Your task to perform on an android device: turn pop-ups on in chrome Image 0: 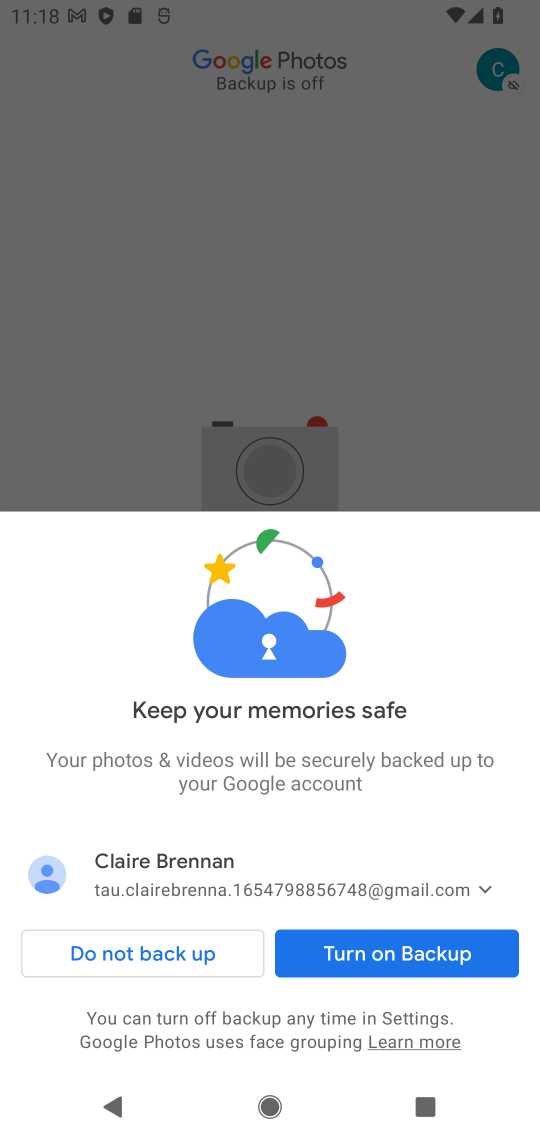
Step 0: press home button
Your task to perform on an android device: turn pop-ups on in chrome Image 1: 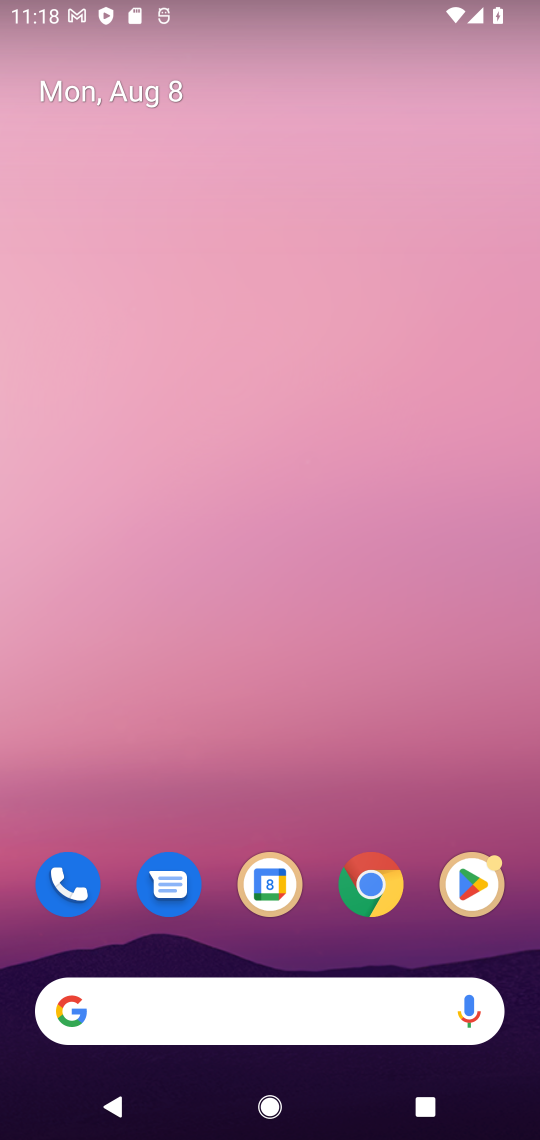
Step 1: click (372, 909)
Your task to perform on an android device: turn pop-ups on in chrome Image 2: 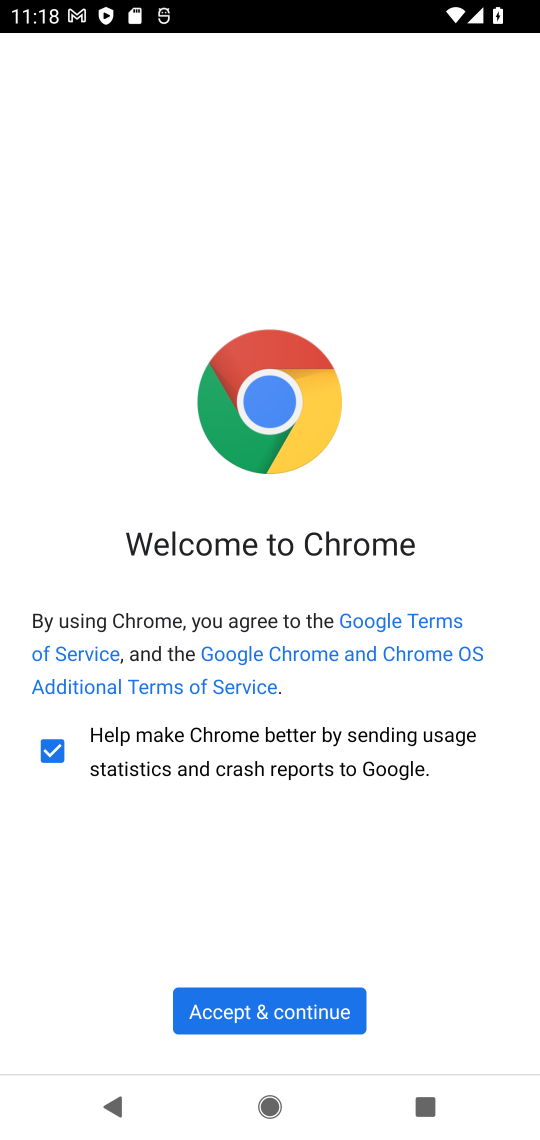
Step 2: click (299, 1013)
Your task to perform on an android device: turn pop-ups on in chrome Image 3: 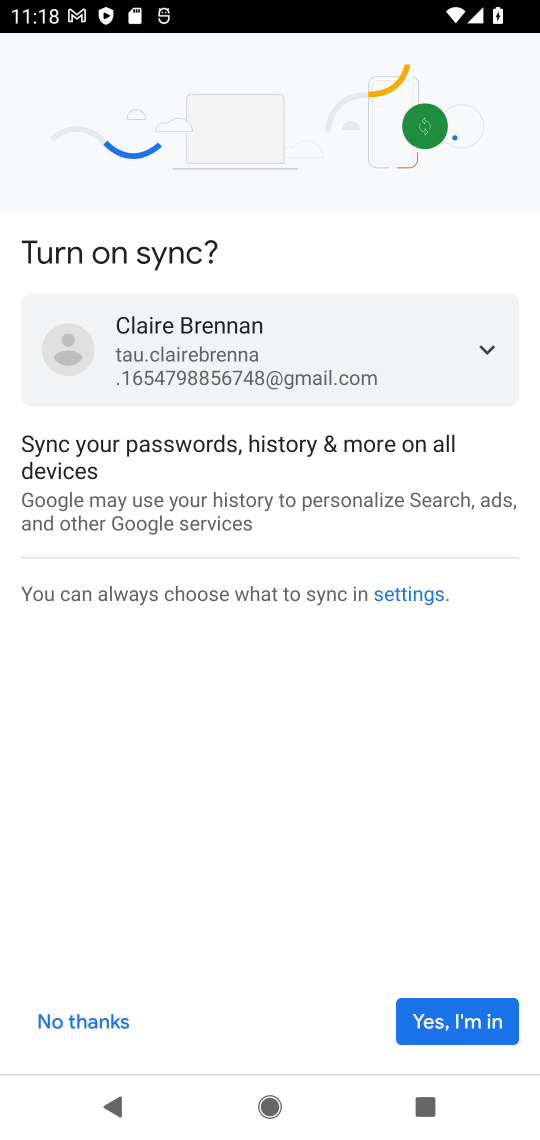
Step 3: click (468, 1010)
Your task to perform on an android device: turn pop-ups on in chrome Image 4: 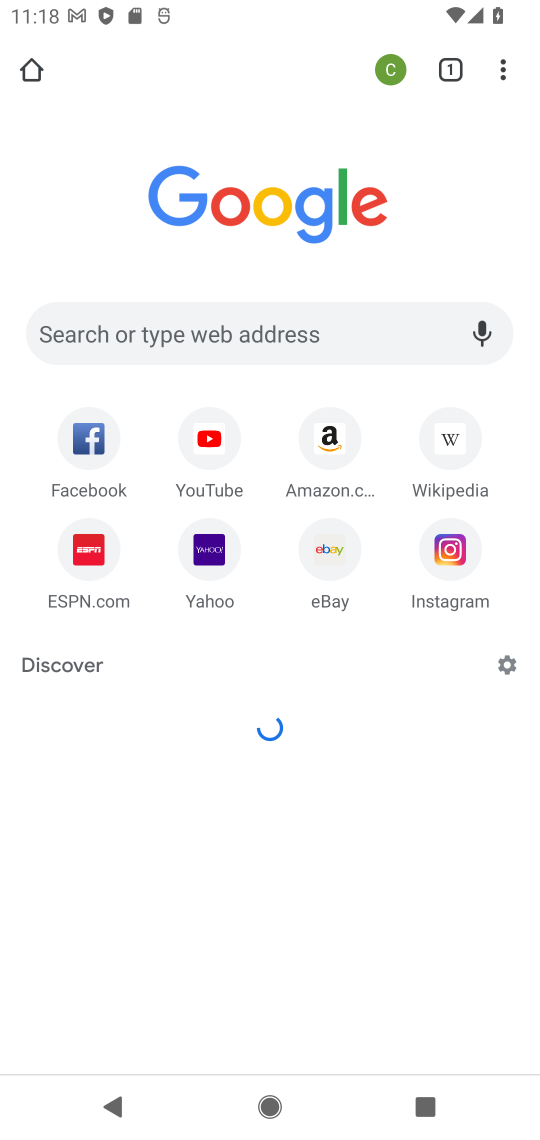
Step 4: click (498, 55)
Your task to perform on an android device: turn pop-ups on in chrome Image 5: 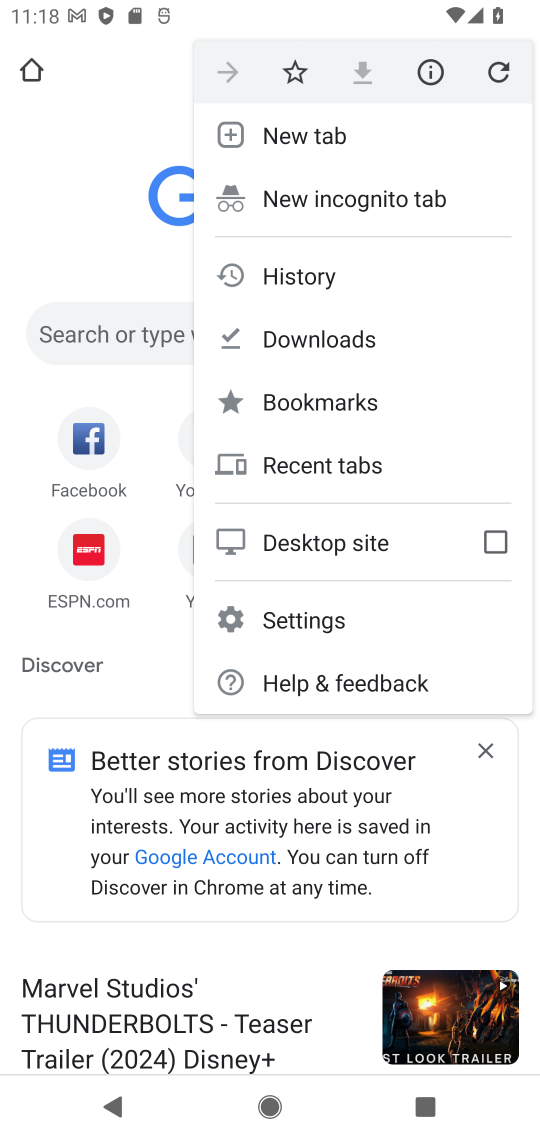
Step 5: click (313, 613)
Your task to perform on an android device: turn pop-ups on in chrome Image 6: 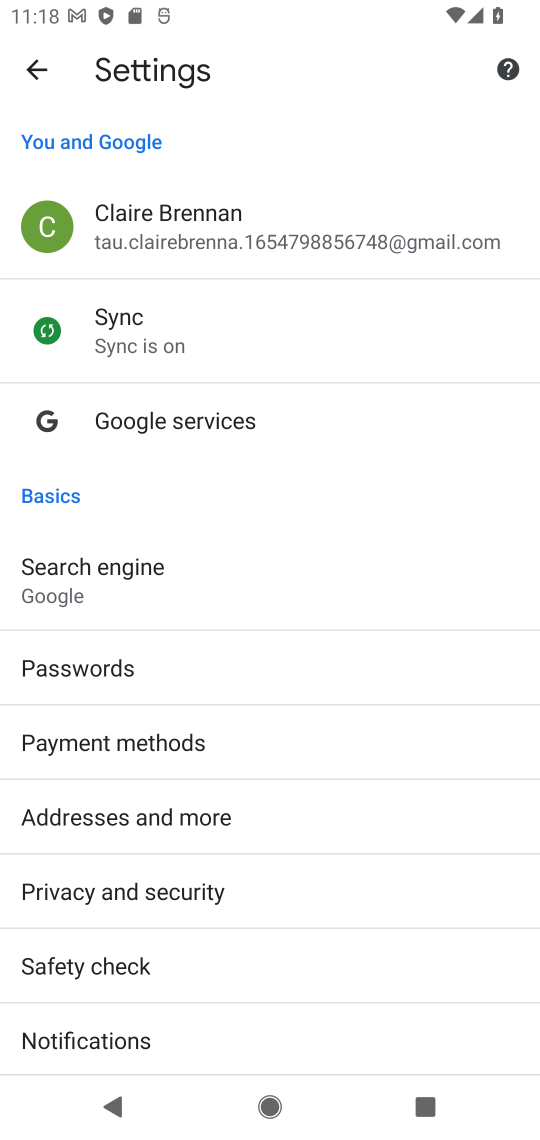
Step 6: drag from (173, 876) to (174, 404)
Your task to perform on an android device: turn pop-ups on in chrome Image 7: 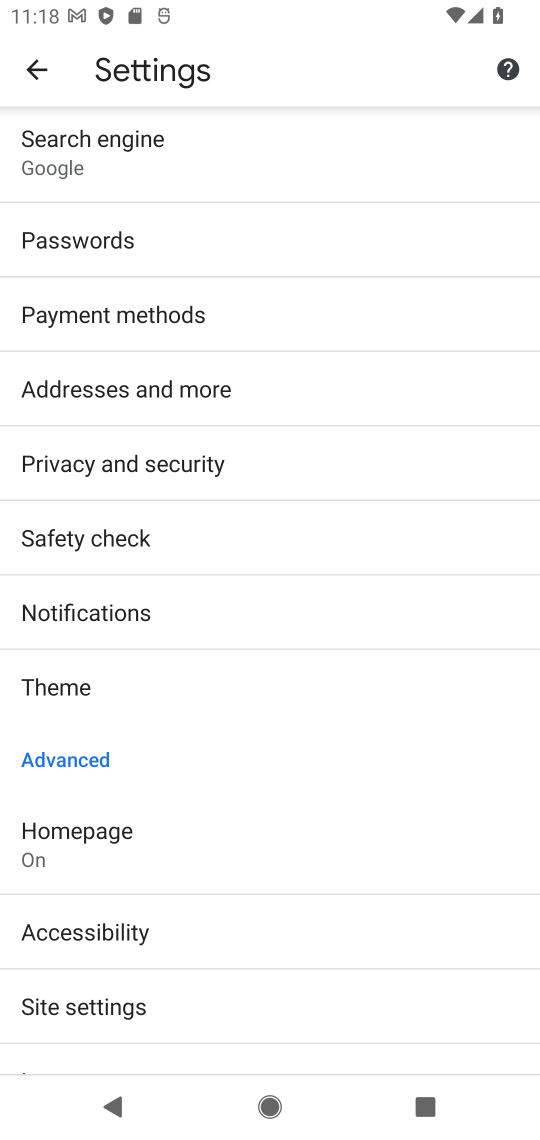
Step 7: drag from (157, 938) to (193, 592)
Your task to perform on an android device: turn pop-ups on in chrome Image 8: 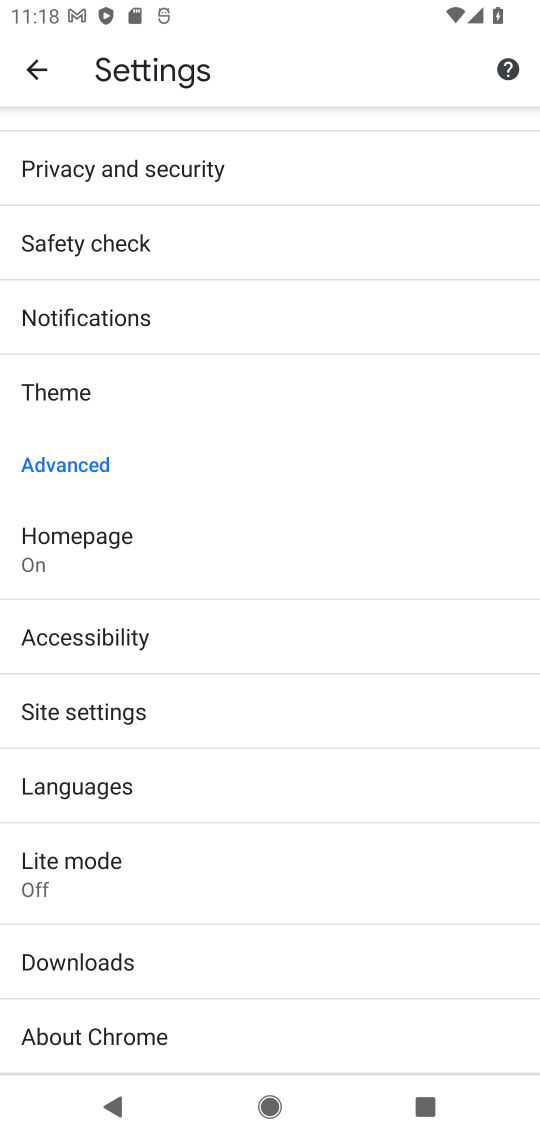
Step 8: click (108, 717)
Your task to perform on an android device: turn pop-ups on in chrome Image 9: 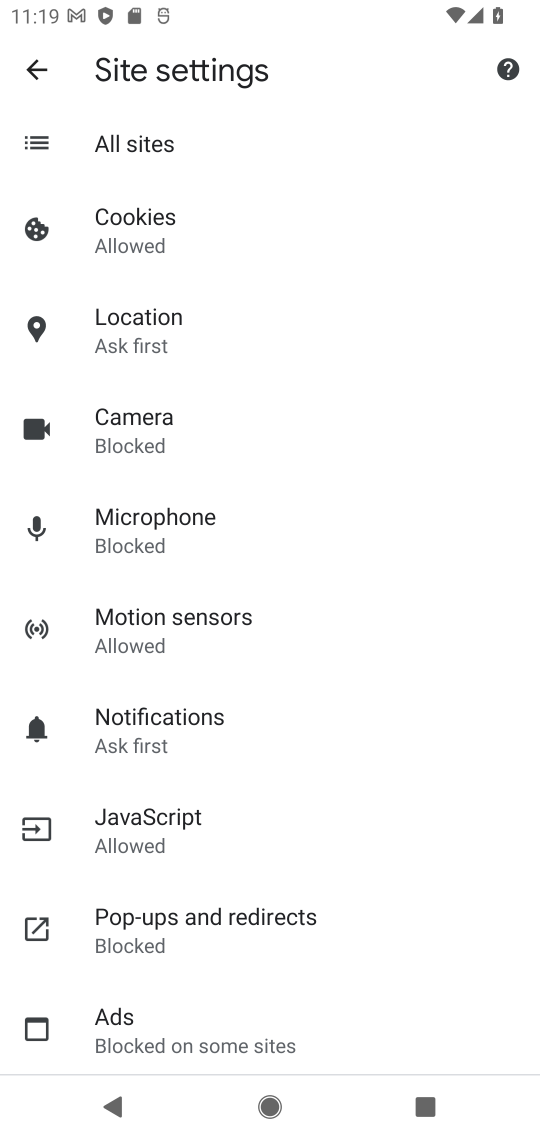
Step 9: click (188, 941)
Your task to perform on an android device: turn pop-ups on in chrome Image 10: 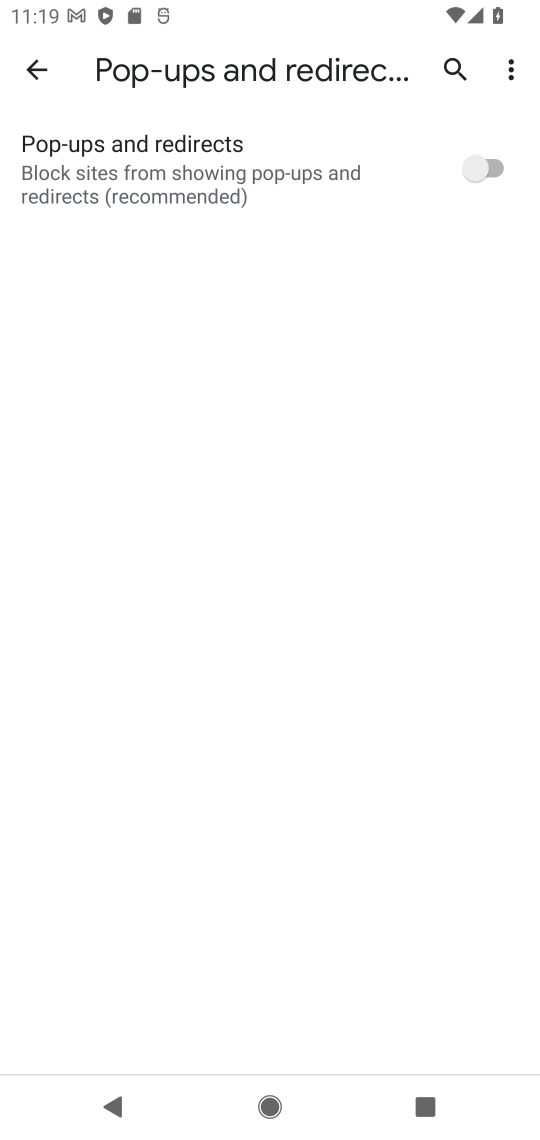
Step 10: click (505, 169)
Your task to perform on an android device: turn pop-ups on in chrome Image 11: 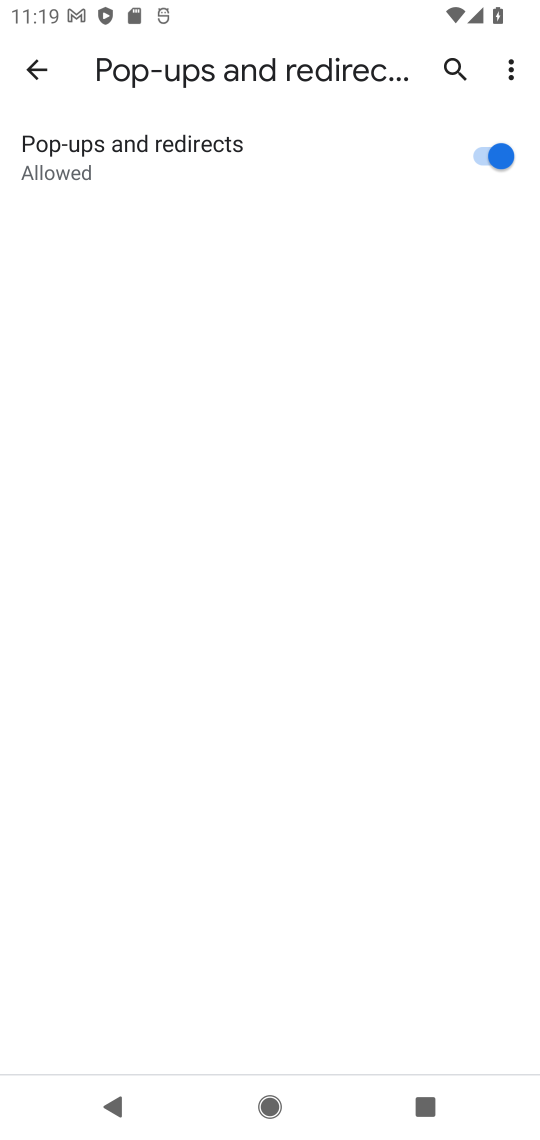
Step 11: task complete